Your task to perform on an android device: Open Google Image 0: 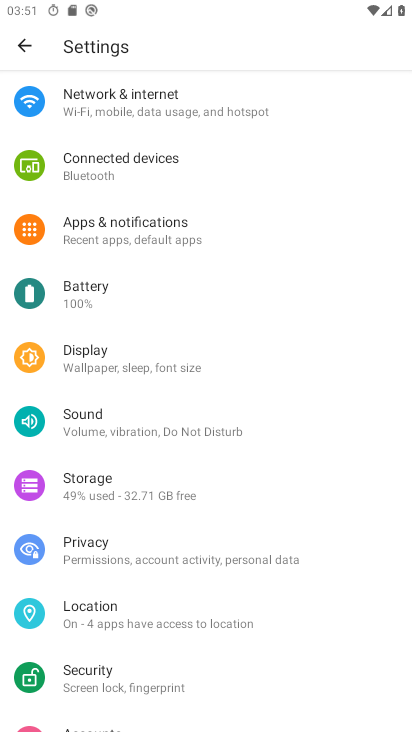
Step 0: press home button
Your task to perform on an android device: Open Google Image 1: 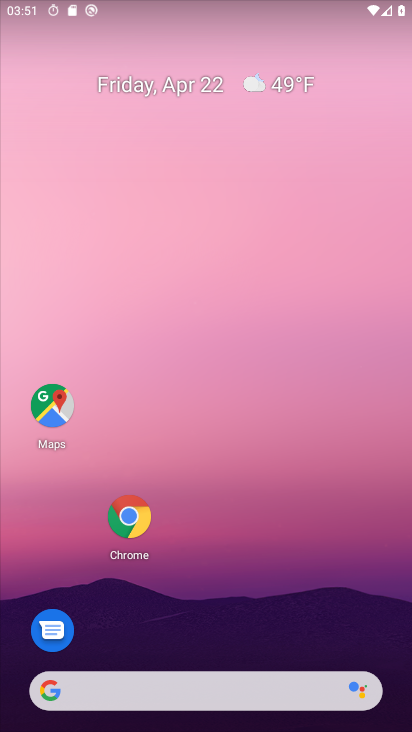
Step 1: drag from (323, 342) to (310, 187)
Your task to perform on an android device: Open Google Image 2: 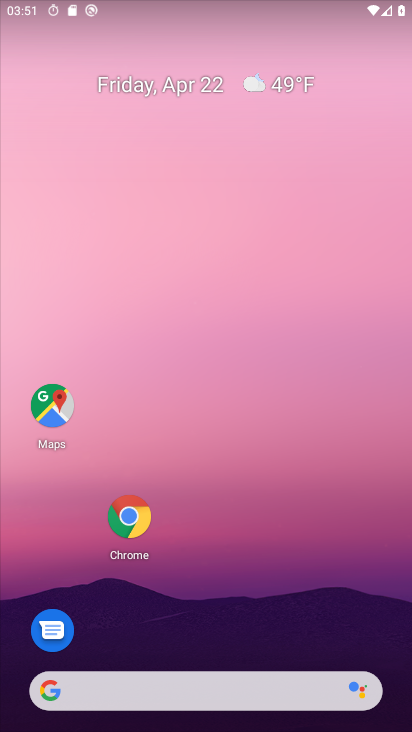
Step 2: drag from (364, 109) to (351, 29)
Your task to perform on an android device: Open Google Image 3: 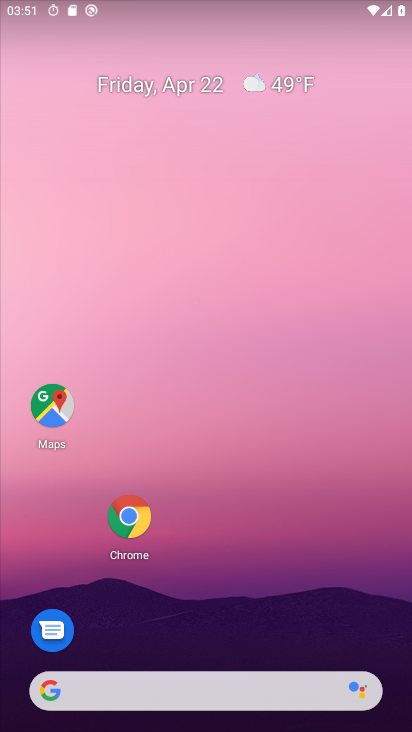
Step 3: click (365, 92)
Your task to perform on an android device: Open Google Image 4: 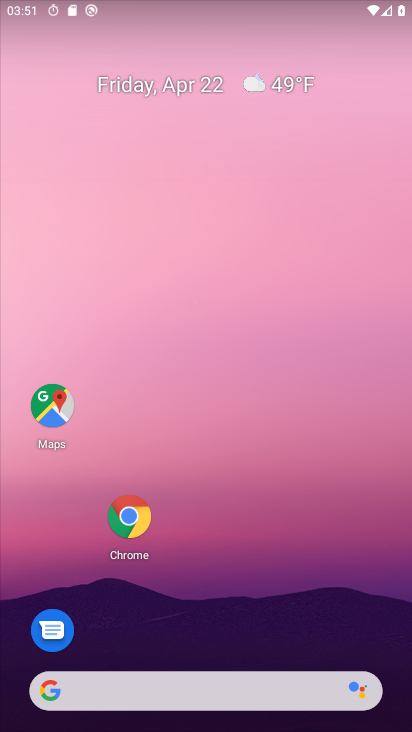
Step 4: task complete